Your task to perform on an android device: turn on priority inbox in the gmail app Image 0: 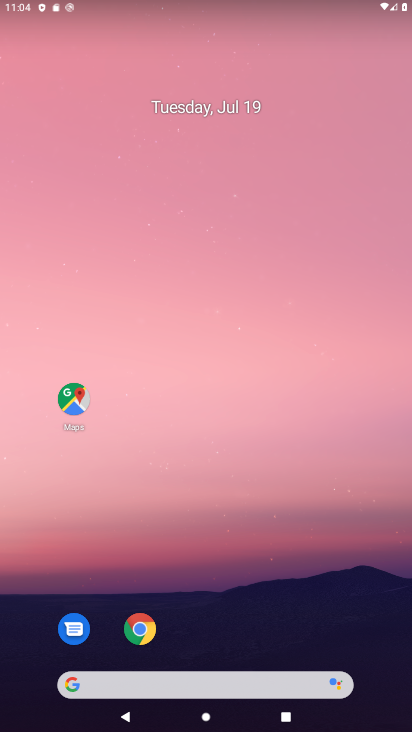
Step 0: drag from (293, 585) to (281, 4)
Your task to perform on an android device: turn on priority inbox in the gmail app Image 1: 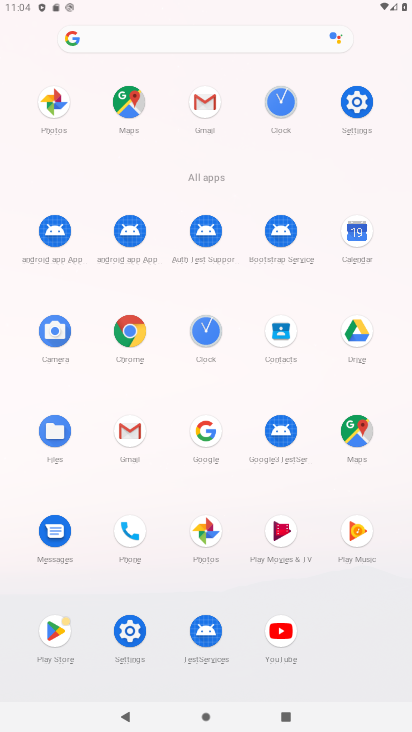
Step 1: click (210, 94)
Your task to perform on an android device: turn on priority inbox in the gmail app Image 2: 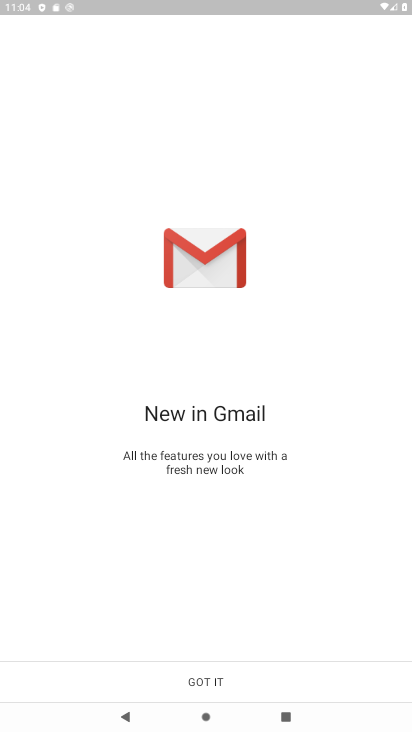
Step 2: click (195, 686)
Your task to perform on an android device: turn on priority inbox in the gmail app Image 3: 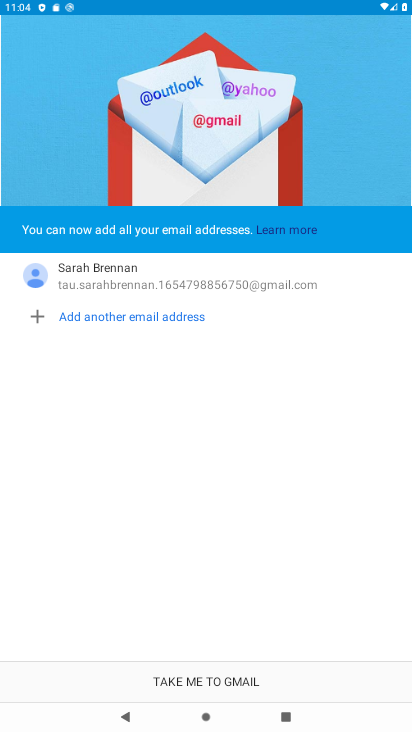
Step 3: click (192, 682)
Your task to perform on an android device: turn on priority inbox in the gmail app Image 4: 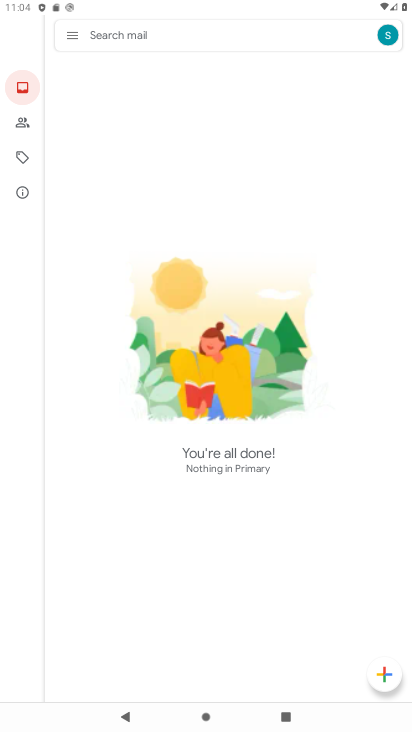
Step 4: click (77, 35)
Your task to perform on an android device: turn on priority inbox in the gmail app Image 5: 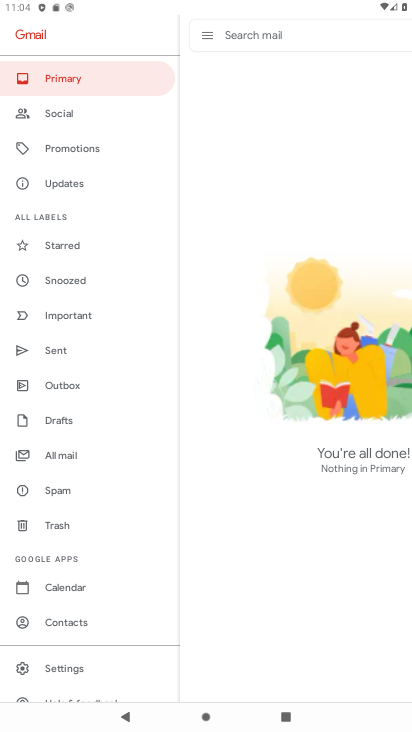
Step 5: click (72, 664)
Your task to perform on an android device: turn on priority inbox in the gmail app Image 6: 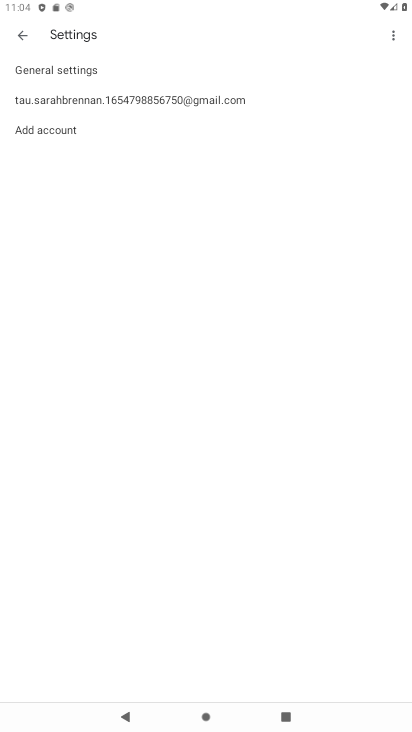
Step 6: click (192, 101)
Your task to perform on an android device: turn on priority inbox in the gmail app Image 7: 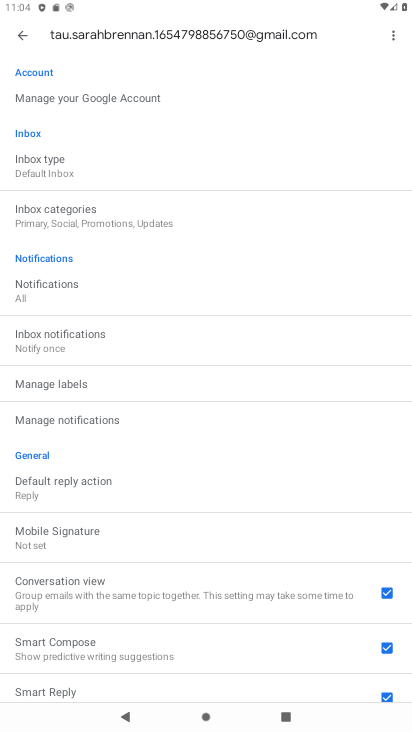
Step 7: click (52, 163)
Your task to perform on an android device: turn on priority inbox in the gmail app Image 8: 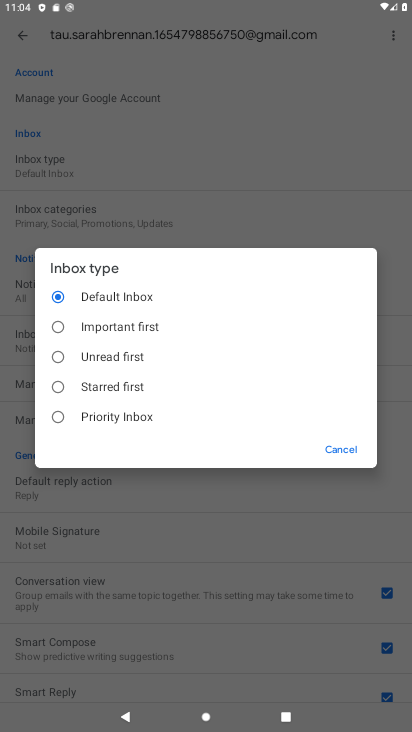
Step 8: task complete